Your task to perform on an android device: turn notification dots off Image 0: 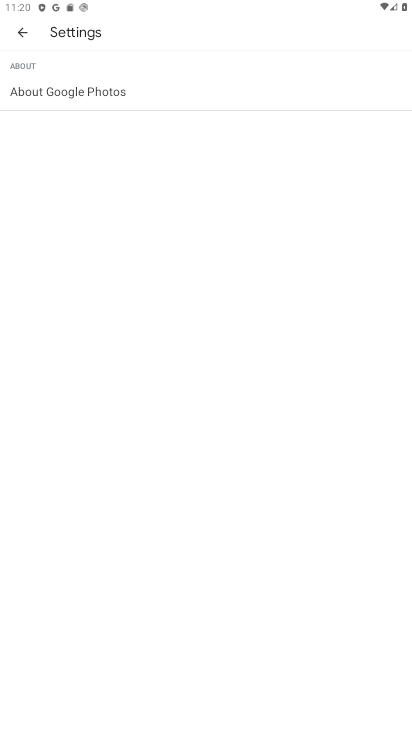
Step 0: press home button
Your task to perform on an android device: turn notification dots off Image 1: 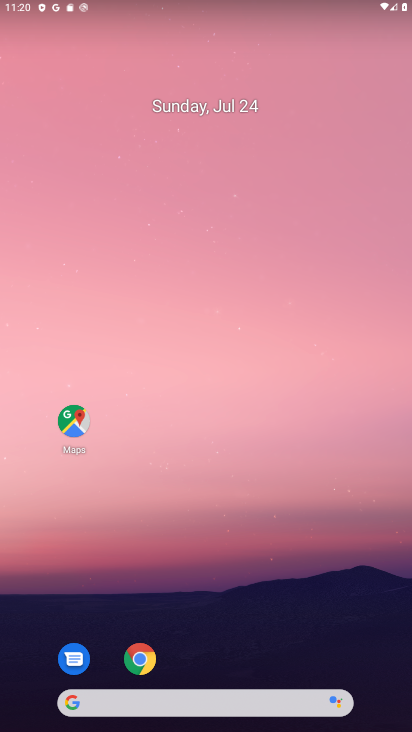
Step 1: drag from (222, 621) to (248, 251)
Your task to perform on an android device: turn notification dots off Image 2: 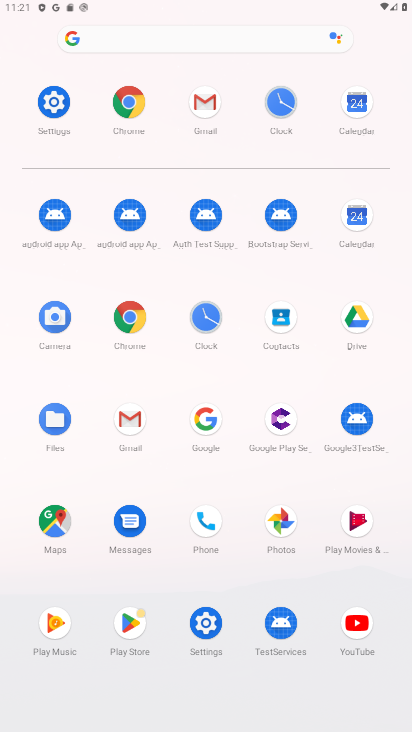
Step 2: click (47, 107)
Your task to perform on an android device: turn notification dots off Image 3: 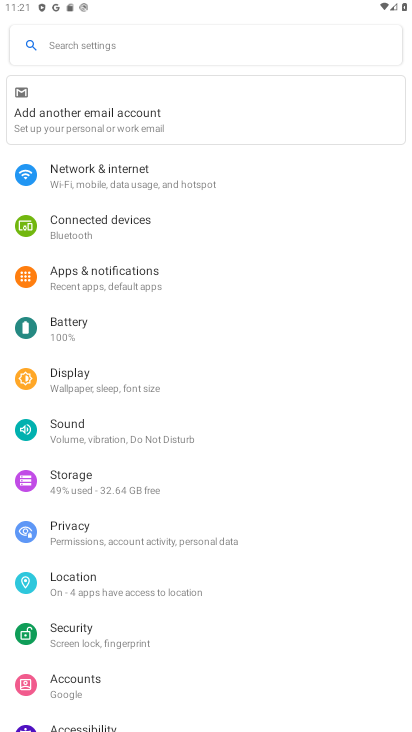
Step 3: click (153, 50)
Your task to perform on an android device: turn notification dots off Image 4: 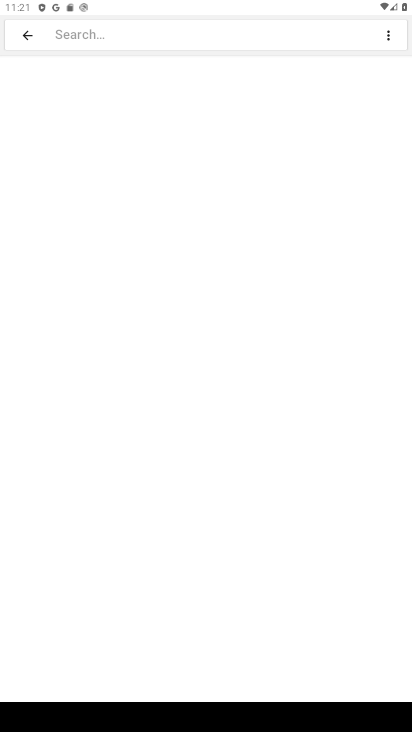
Step 4: type "notification dots "
Your task to perform on an android device: turn notification dots off Image 5: 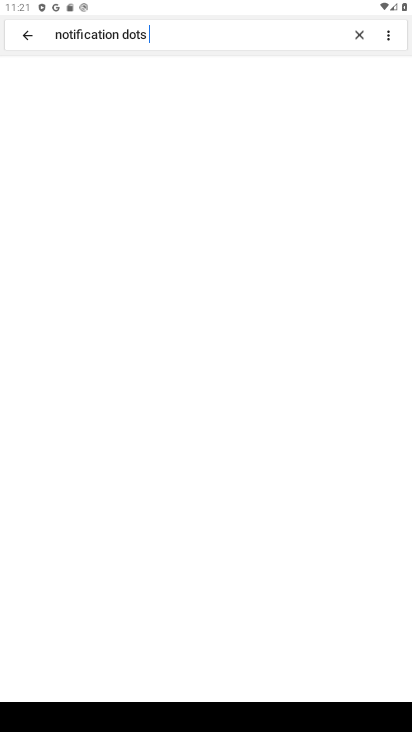
Step 5: click (199, 96)
Your task to perform on an android device: turn notification dots off Image 6: 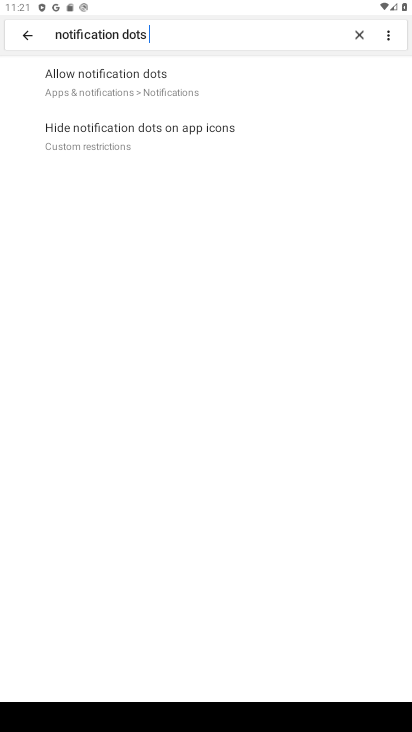
Step 6: click (178, 80)
Your task to perform on an android device: turn notification dots off Image 7: 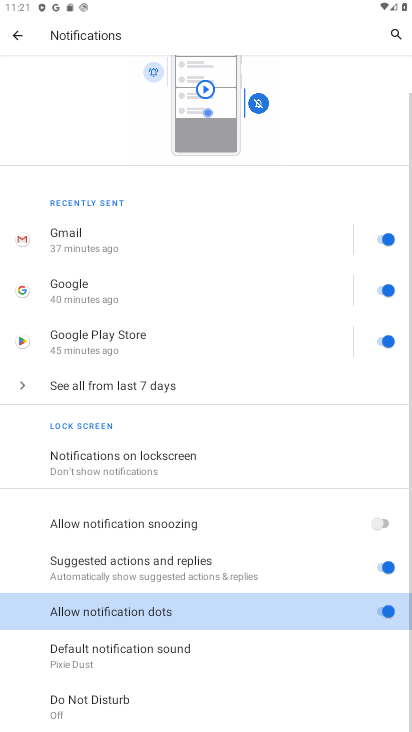
Step 7: click (384, 609)
Your task to perform on an android device: turn notification dots off Image 8: 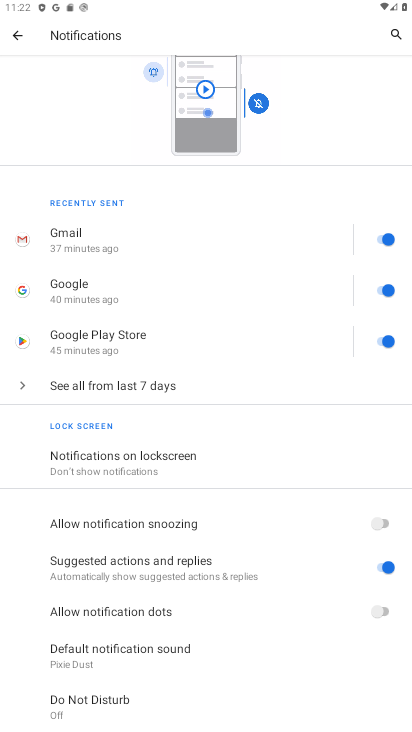
Step 8: task complete